Your task to perform on an android device: toggle translation in the chrome app Image 0: 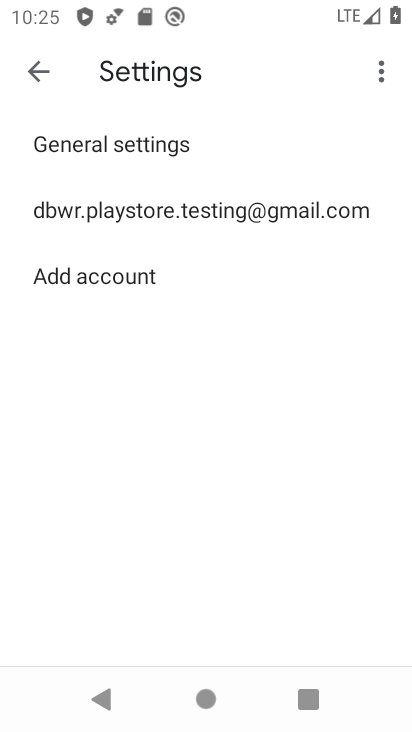
Step 0: press home button
Your task to perform on an android device: toggle translation in the chrome app Image 1: 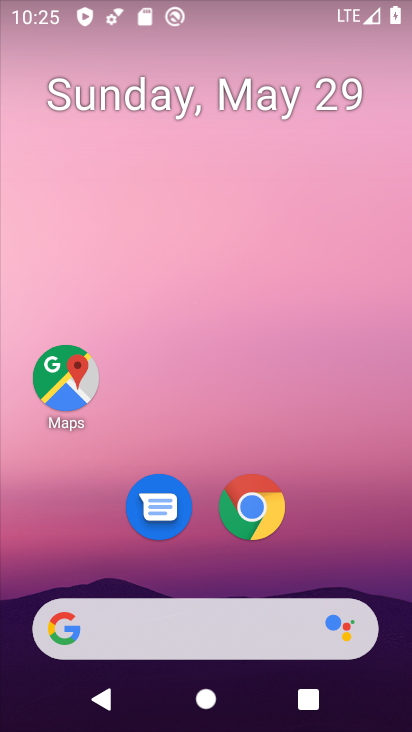
Step 1: drag from (113, 582) to (238, 282)
Your task to perform on an android device: toggle translation in the chrome app Image 2: 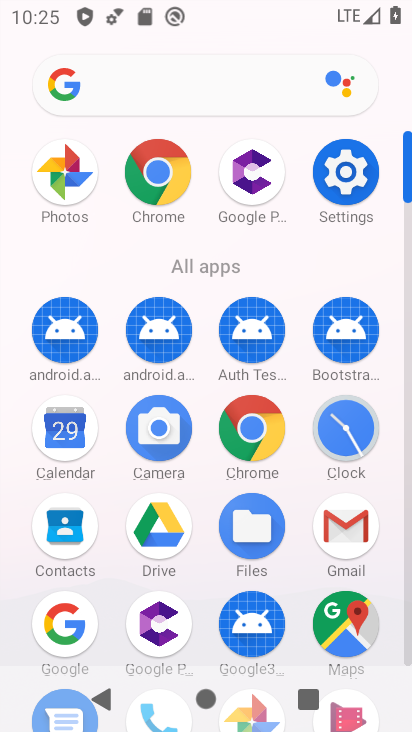
Step 2: click (265, 425)
Your task to perform on an android device: toggle translation in the chrome app Image 3: 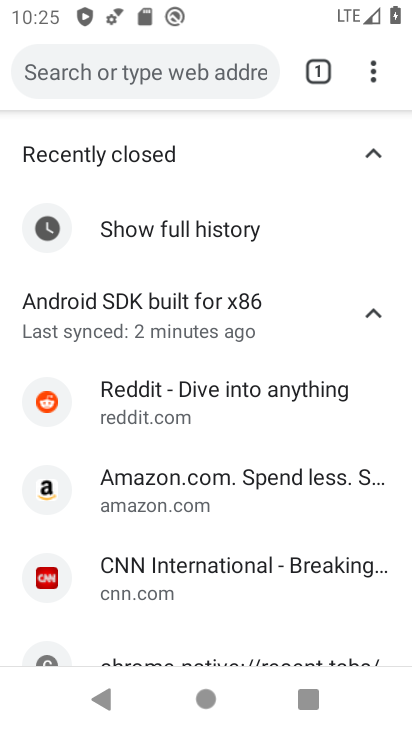
Step 3: press back button
Your task to perform on an android device: toggle translation in the chrome app Image 4: 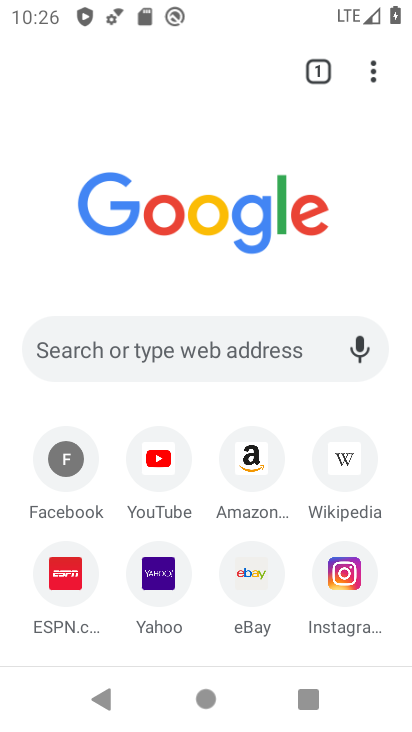
Step 4: drag from (402, 70) to (239, 518)
Your task to perform on an android device: toggle translation in the chrome app Image 5: 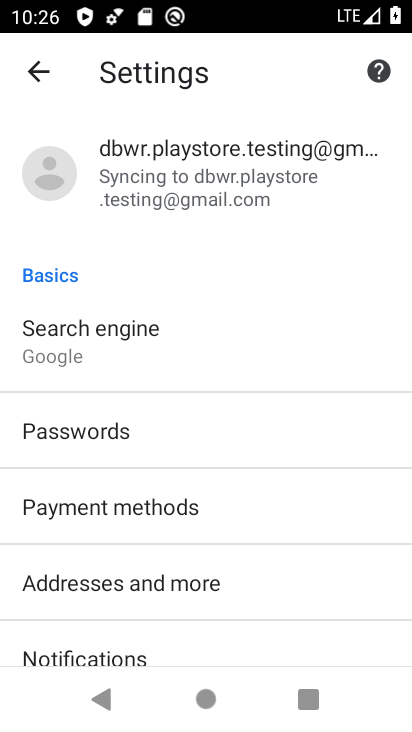
Step 5: drag from (183, 635) to (289, 267)
Your task to perform on an android device: toggle translation in the chrome app Image 6: 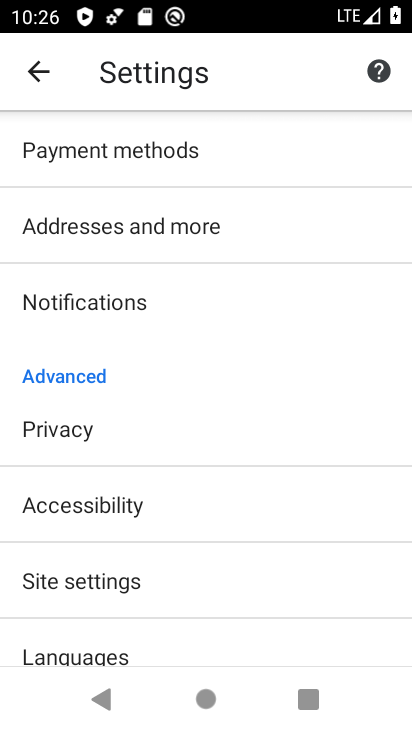
Step 6: drag from (148, 621) to (214, 391)
Your task to perform on an android device: toggle translation in the chrome app Image 7: 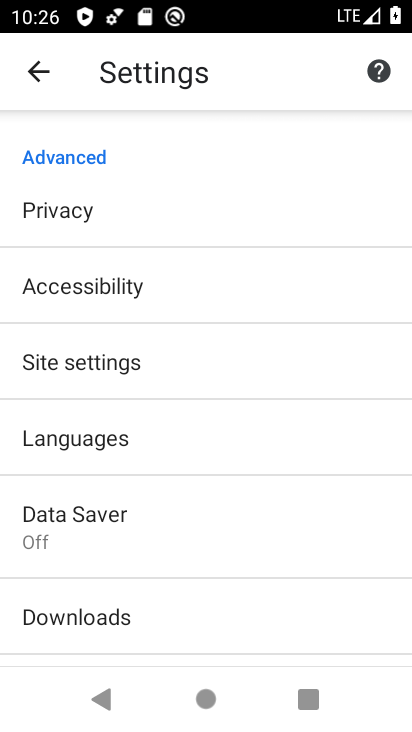
Step 7: click (180, 445)
Your task to perform on an android device: toggle translation in the chrome app Image 8: 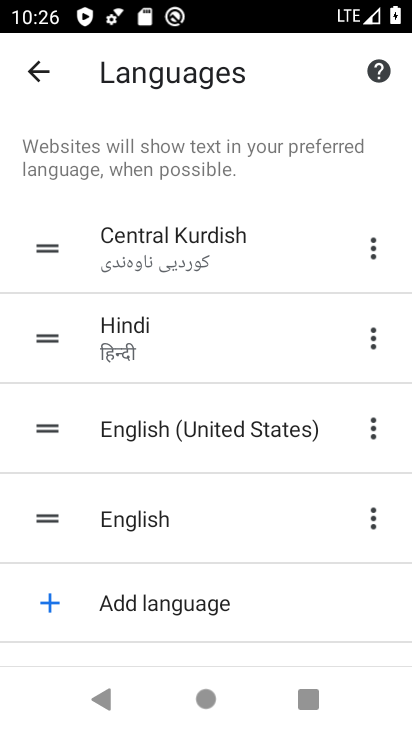
Step 8: task complete